Your task to perform on an android device: delete the emails in spam in the gmail app Image 0: 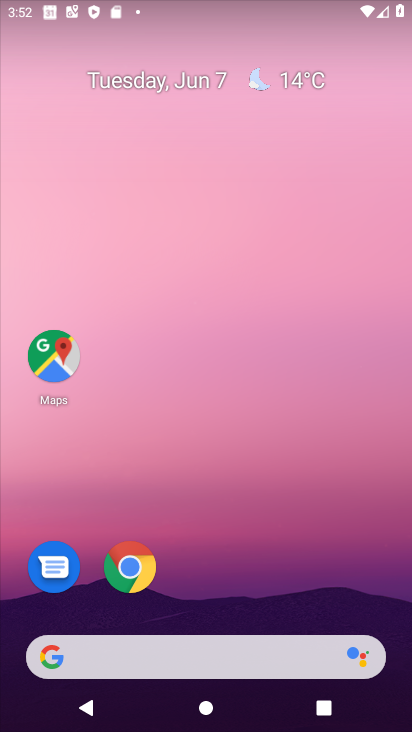
Step 0: drag from (198, 605) to (211, 219)
Your task to perform on an android device: delete the emails in spam in the gmail app Image 1: 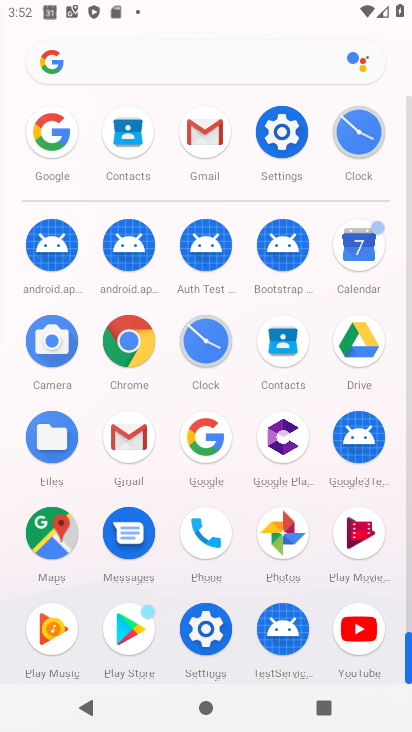
Step 1: click (210, 149)
Your task to perform on an android device: delete the emails in spam in the gmail app Image 2: 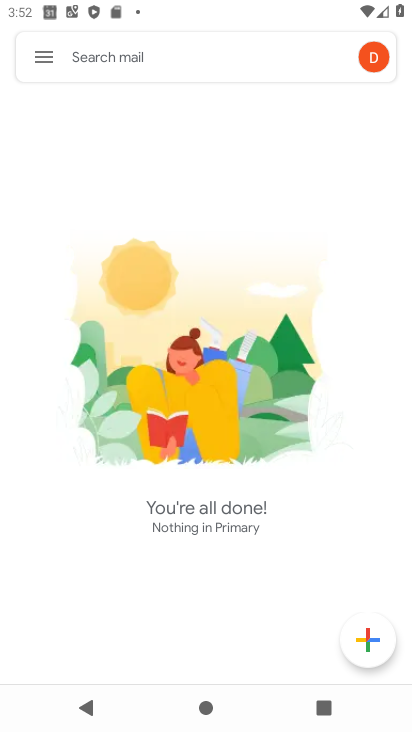
Step 2: click (32, 53)
Your task to perform on an android device: delete the emails in spam in the gmail app Image 3: 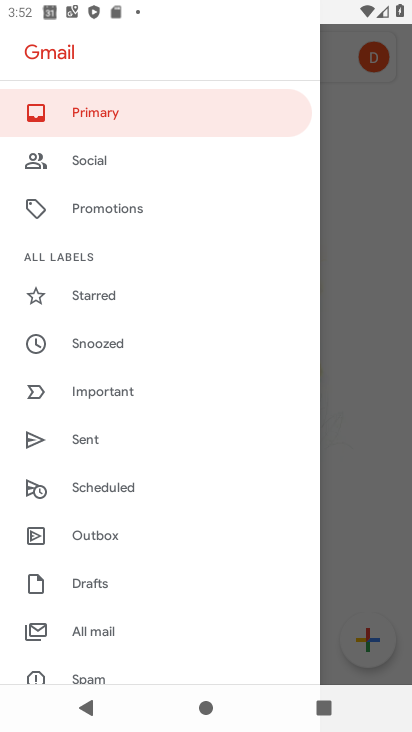
Step 3: click (121, 641)
Your task to perform on an android device: delete the emails in spam in the gmail app Image 4: 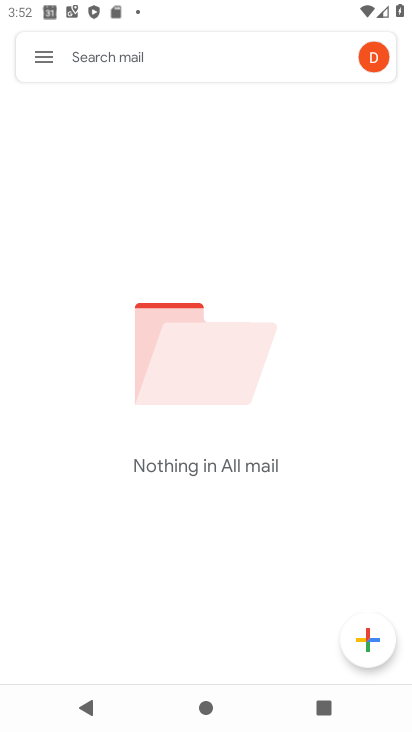
Step 4: task complete